Your task to perform on an android device: Go to eBay Image 0: 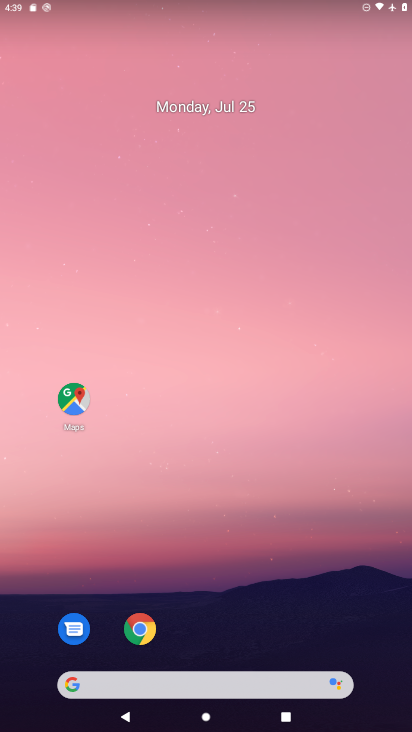
Step 0: drag from (270, 678) to (315, 12)
Your task to perform on an android device: Go to eBay Image 1: 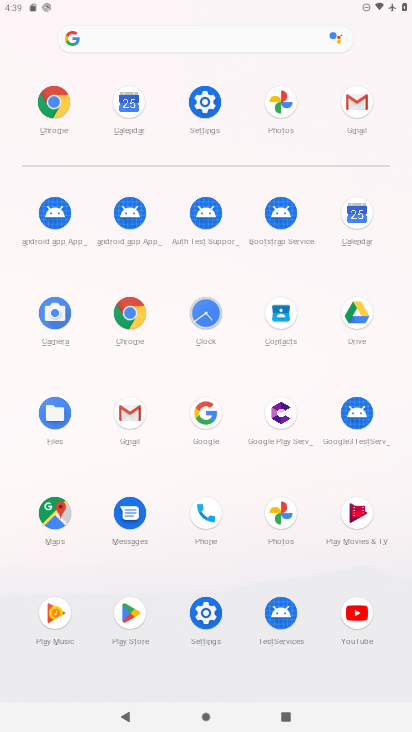
Step 1: click (148, 312)
Your task to perform on an android device: Go to eBay Image 2: 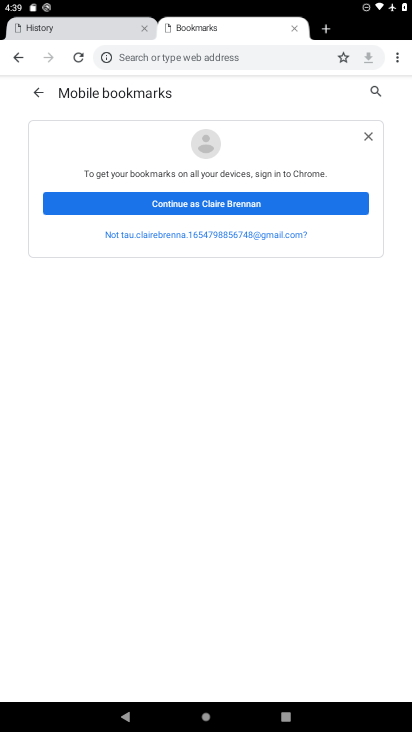
Step 2: click (258, 51)
Your task to perform on an android device: Go to eBay Image 3: 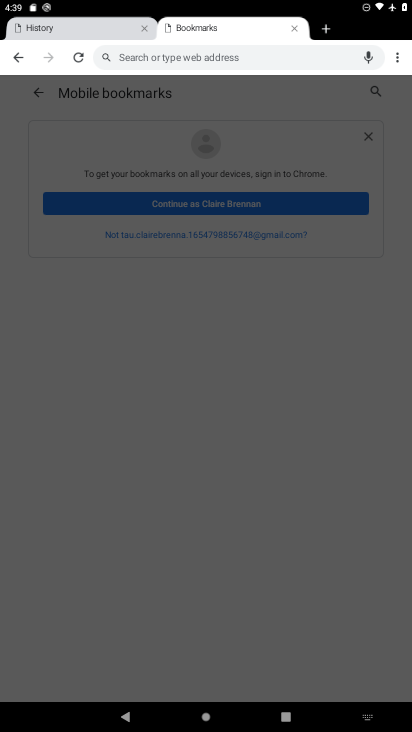
Step 3: type "ebay"
Your task to perform on an android device: Go to eBay Image 4: 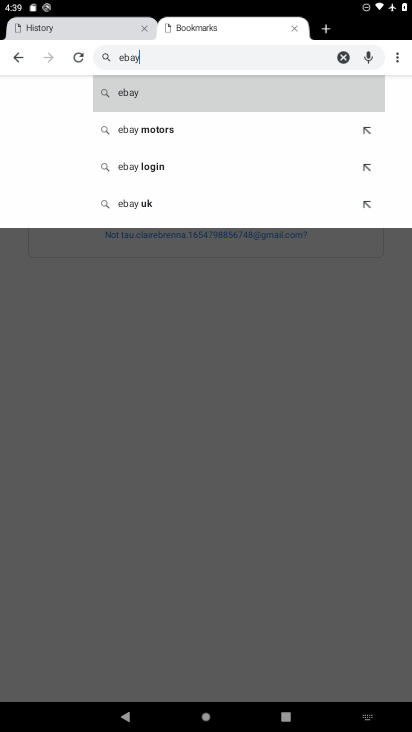
Step 4: click (107, 99)
Your task to perform on an android device: Go to eBay Image 5: 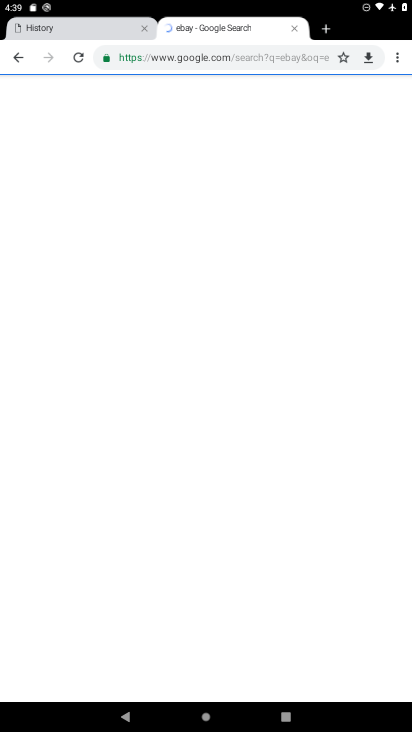
Step 5: task complete